Your task to perform on an android device: Open battery settings Image 0: 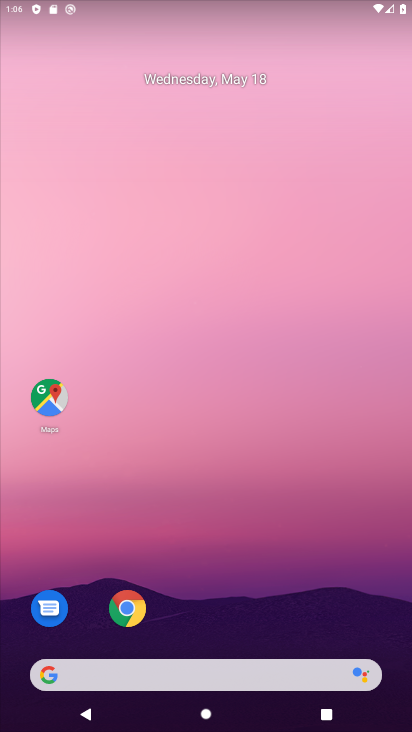
Step 0: drag from (354, 488) to (270, 64)
Your task to perform on an android device: Open battery settings Image 1: 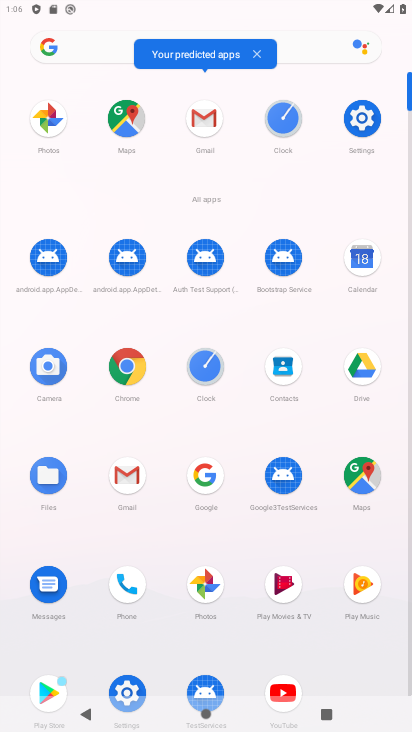
Step 1: click (364, 119)
Your task to perform on an android device: Open battery settings Image 2: 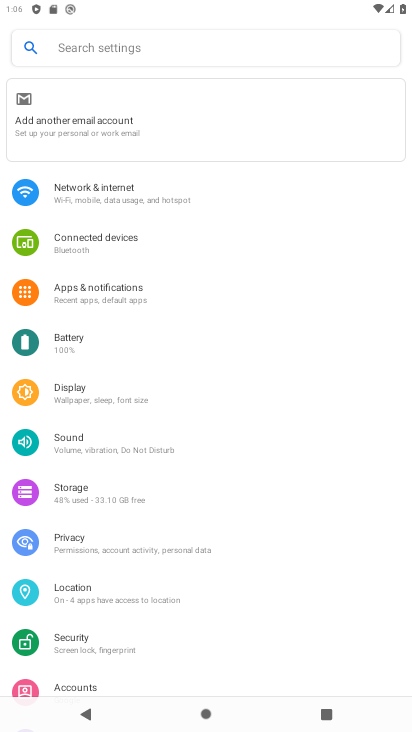
Step 2: click (98, 344)
Your task to perform on an android device: Open battery settings Image 3: 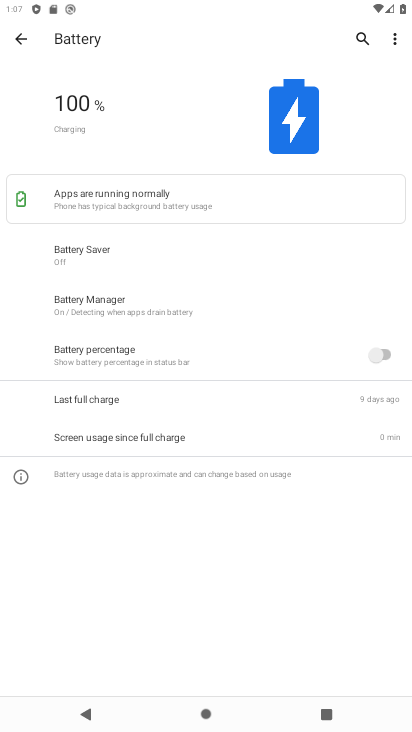
Step 3: task complete